Your task to perform on an android device: Open the Play Movies app and select the watchlist tab. Image 0: 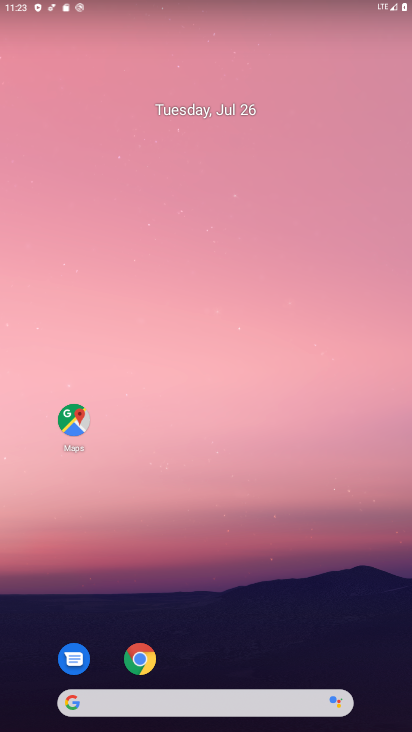
Step 0: drag from (34, 586) to (289, 109)
Your task to perform on an android device: Open the Play Movies app and select the watchlist tab. Image 1: 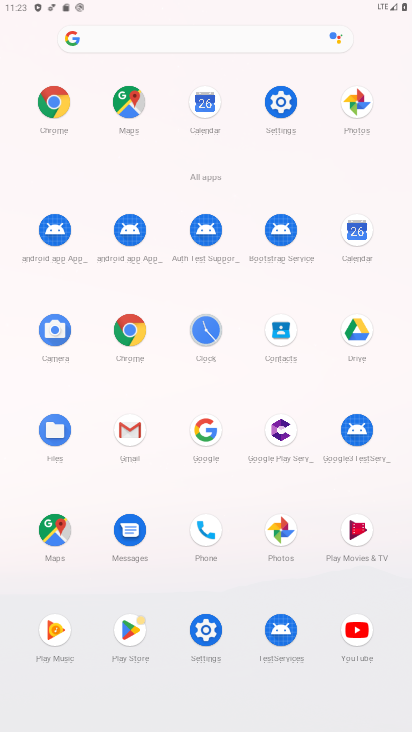
Step 1: click (349, 536)
Your task to perform on an android device: Open the Play Movies app and select the watchlist tab. Image 2: 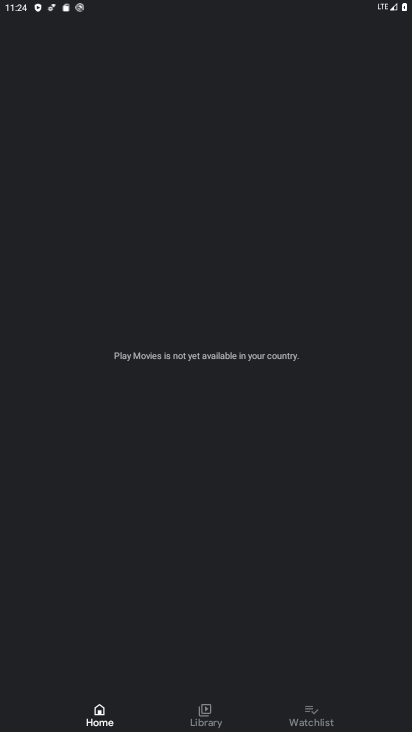
Step 2: click (305, 711)
Your task to perform on an android device: Open the Play Movies app and select the watchlist tab. Image 3: 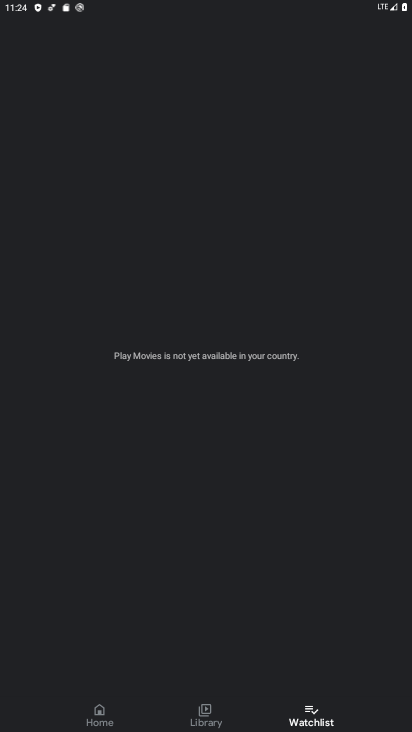
Step 3: task complete